Your task to perform on an android device: Open Reddit.com Image 0: 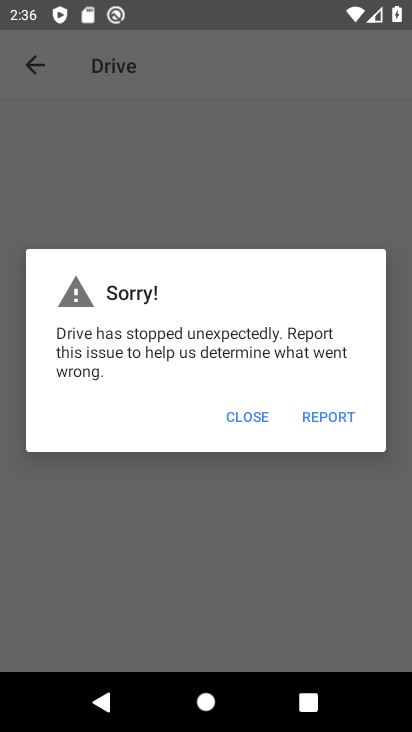
Step 0: press home button
Your task to perform on an android device: Open Reddit.com Image 1: 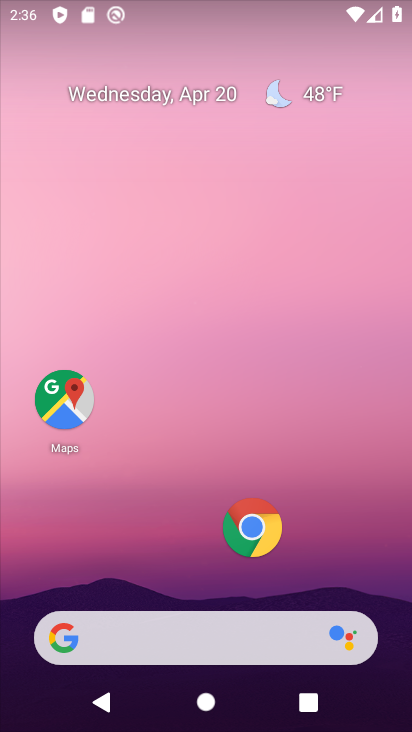
Step 1: click (250, 524)
Your task to perform on an android device: Open Reddit.com Image 2: 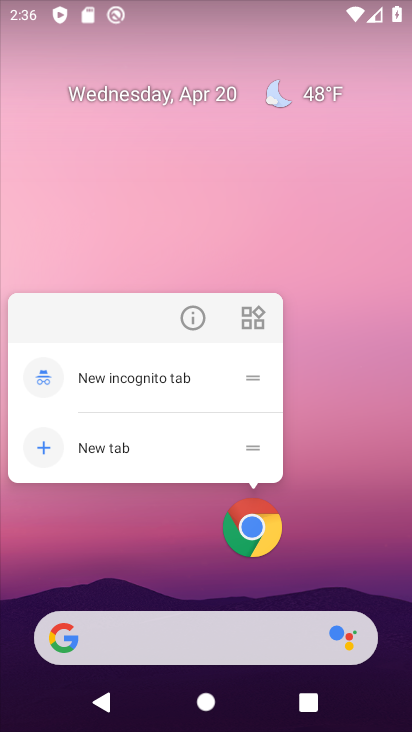
Step 2: click (124, 454)
Your task to perform on an android device: Open Reddit.com Image 3: 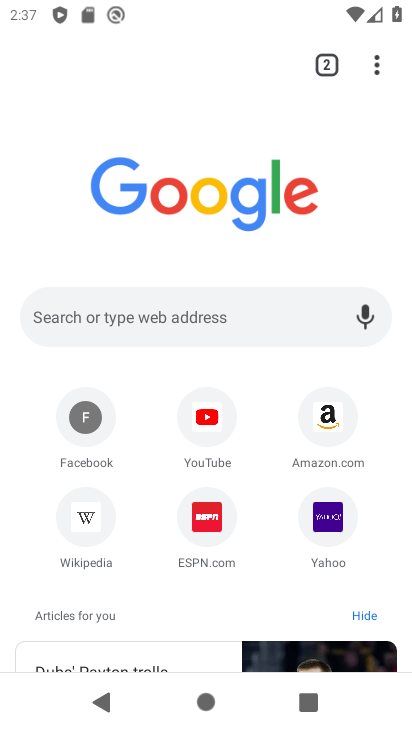
Step 3: click (168, 304)
Your task to perform on an android device: Open Reddit.com Image 4: 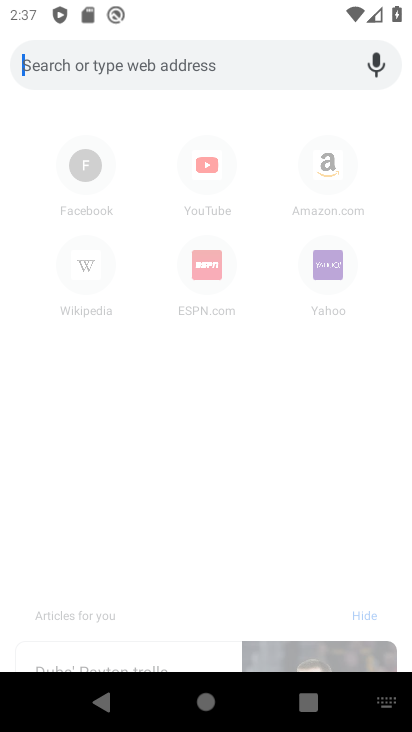
Step 4: type "reddit.com"
Your task to perform on an android device: Open Reddit.com Image 5: 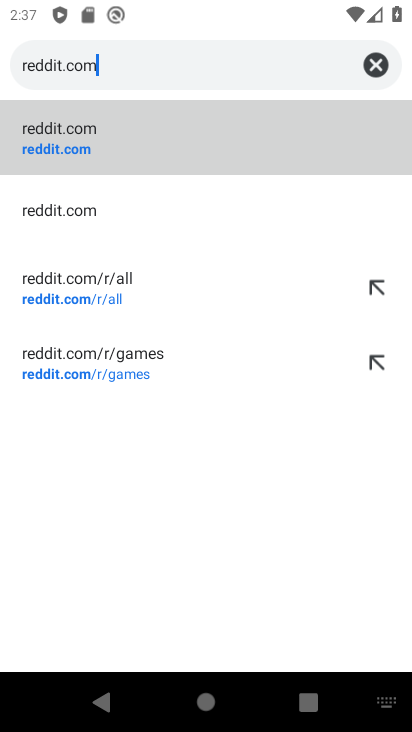
Step 5: click (94, 215)
Your task to perform on an android device: Open Reddit.com Image 6: 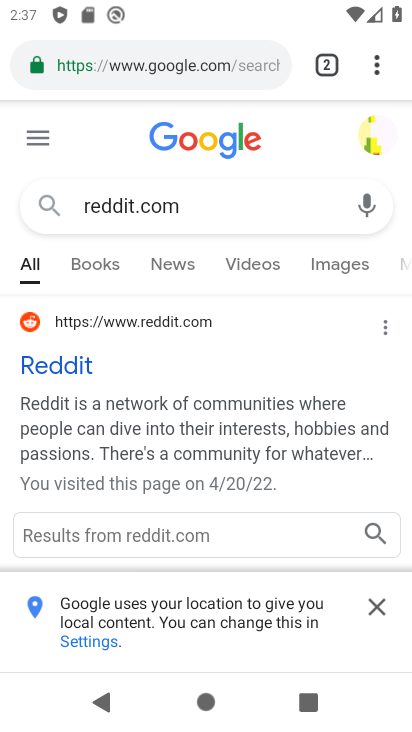
Step 6: task complete